Your task to perform on an android device: turn pop-ups on in chrome Image 0: 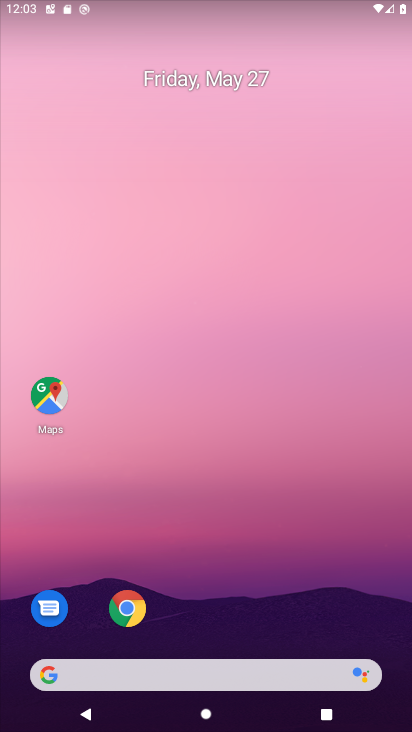
Step 0: click (114, 612)
Your task to perform on an android device: turn pop-ups on in chrome Image 1: 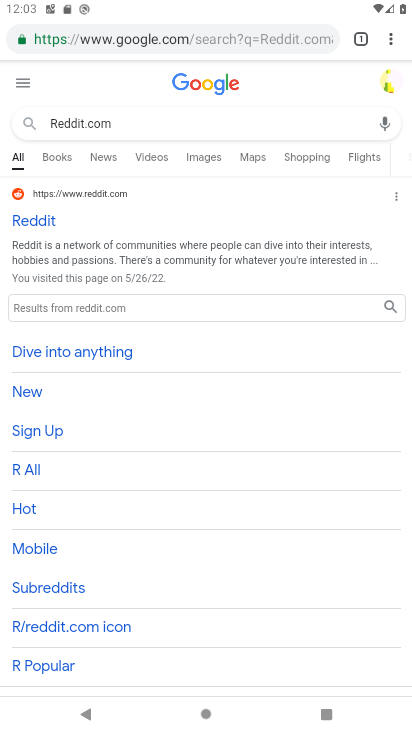
Step 1: click (389, 40)
Your task to perform on an android device: turn pop-ups on in chrome Image 2: 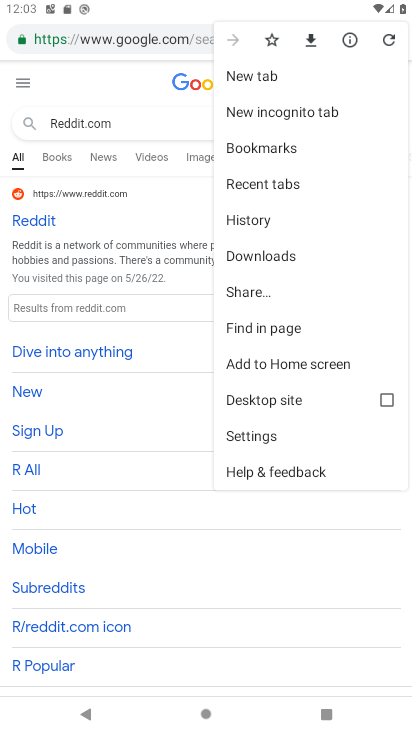
Step 2: click (265, 431)
Your task to perform on an android device: turn pop-ups on in chrome Image 3: 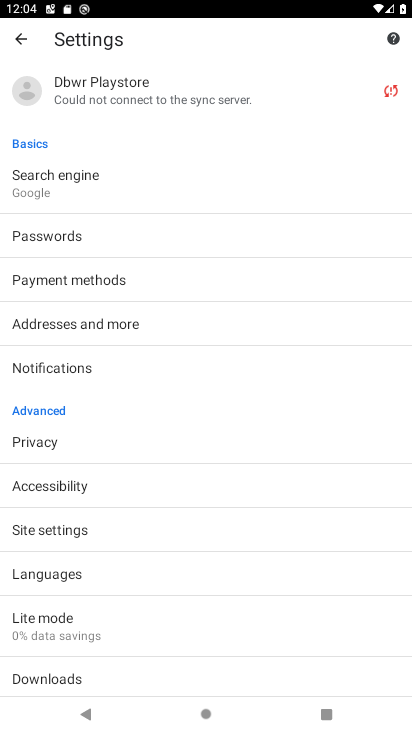
Step 3: drag from (218, 651) to (228, 340)
Your task to perform on an android device: turn pop-ups on in chrome Image 4: 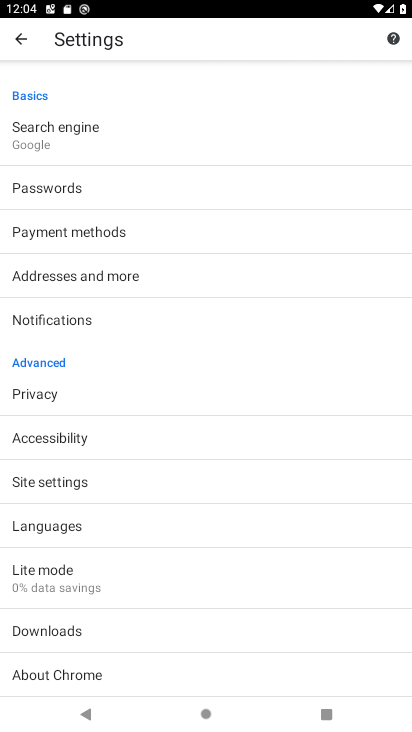
Step 4: click (49, 482)
Your task to perform on an android device: turn pop-ups on in chrome Image 5: 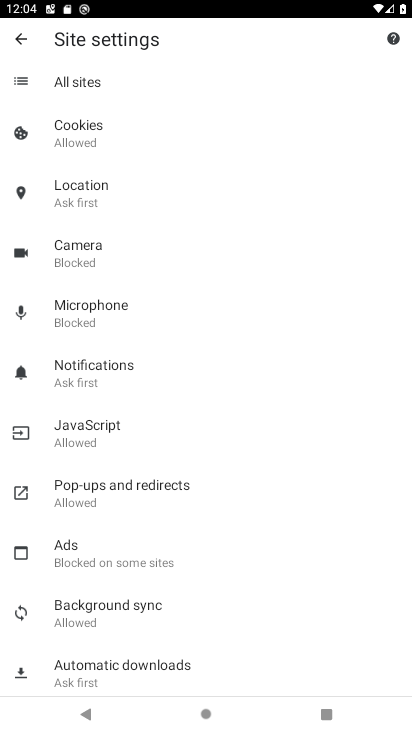
Step 5: click (91, 492)
Your task to perform on an android device: turn pop-ups on in chrome Image 6: 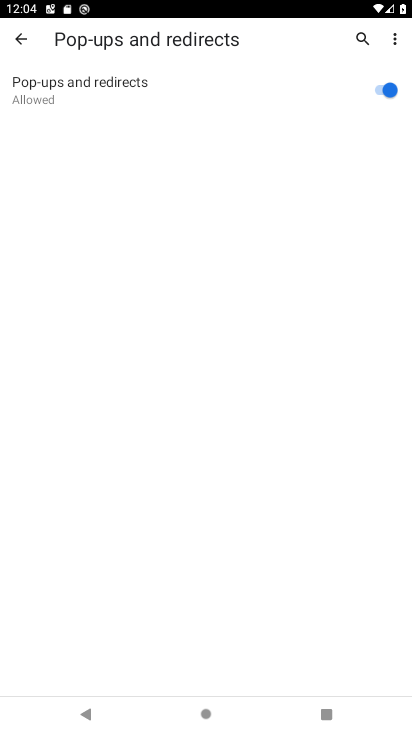
Step 6: task complete